Your task to perform on an android device: turn off notifications settings in the gmail app Image 0: 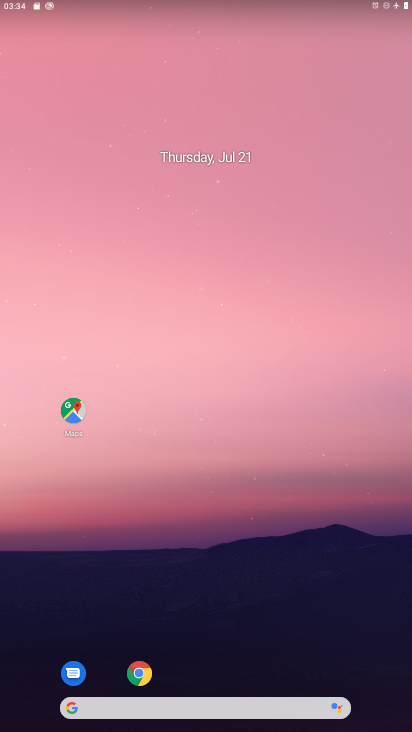
Step 0: drag from (229, 659) to (231, 223)
Your task to perform on an android device: turn off notifications settings in the gmail app Image 1: 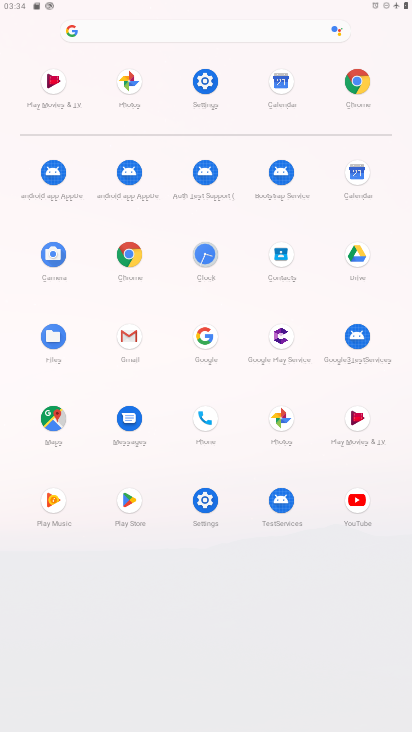
Step 1: click (132, 337)
Your task to perform on an android device: turn off notifications settings in the gmail app Image 2: 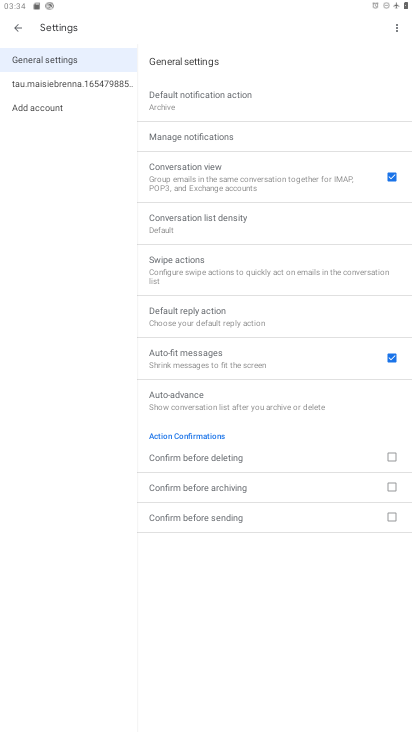
Step 2: click (10, 24)
Your task to perform on an android device: turn off notifications settings in the gmail app Image 3: 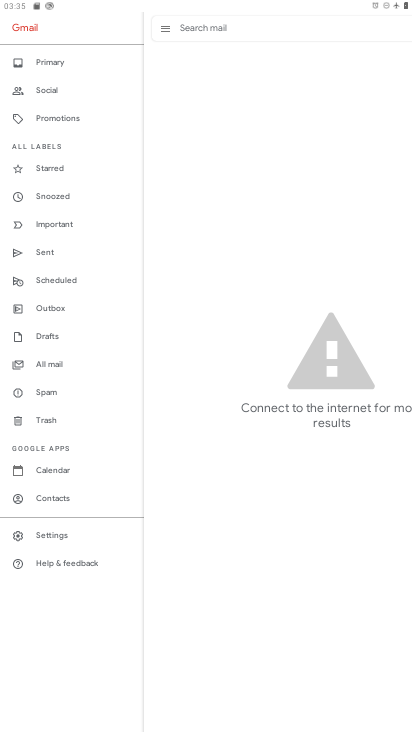
Step 3: click (70, 531)
Your task to perform on an android device: turn off notifications settings in the gmail app Image 4: 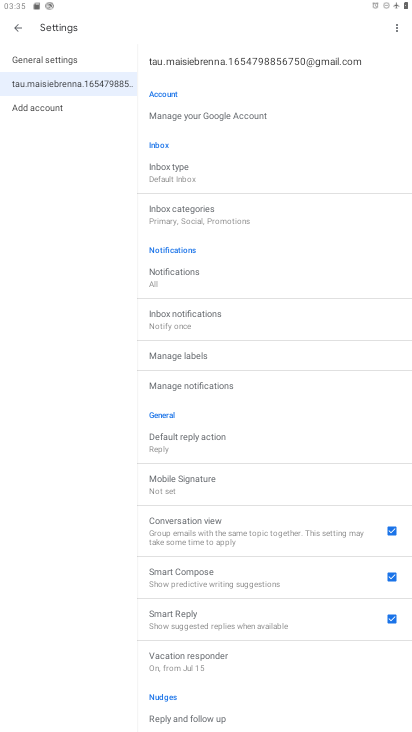
Step 4: click (37, 49)
Your task to perform on an android device: turn off notifications settings in the gmail app Image 5: 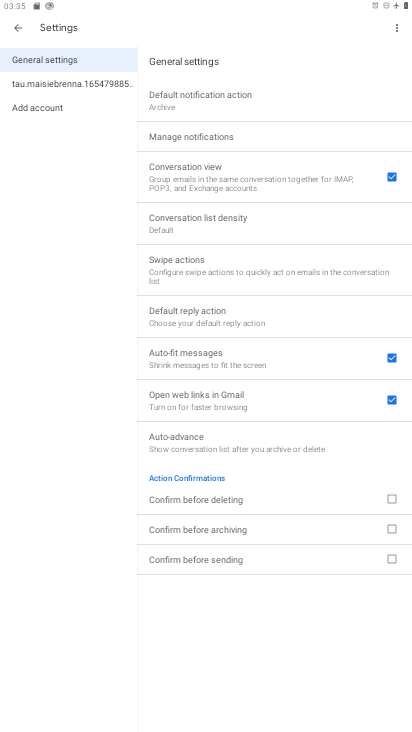
Step 5: click (40, 92)
Your task to perform on an android device: turn off notifications settings in the gmail app Image 6: 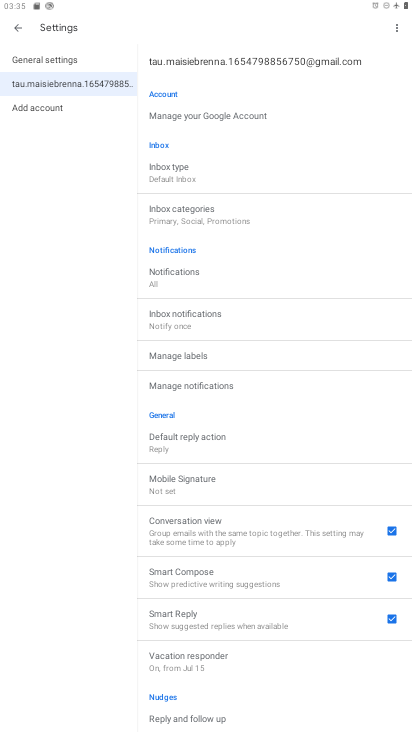
Step 6: click (184, 281)
Your task to perform on an android device: turn off notifications settings in the gmail app Image 7: 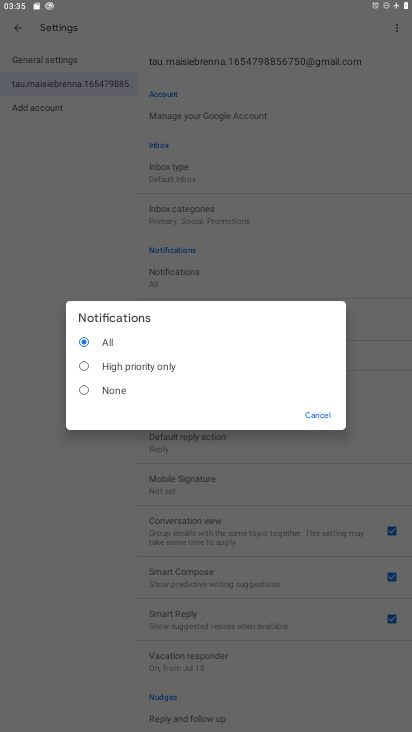
Step 7: click (117, 384)
Your task to perform on an android device: turn off notifications settings in the gmail app Image 8: 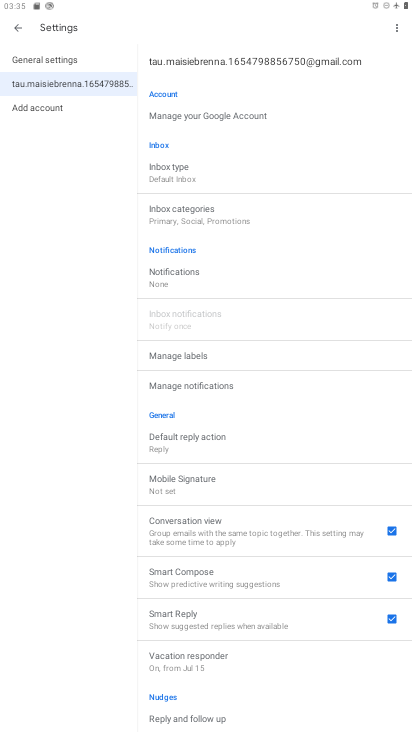
Step 8: task complete